Your task to perform on an android device: Empty the shopping cart on amazon. Search for usb-c on amazon, select the first entry, and add it to the cart. Image 0: 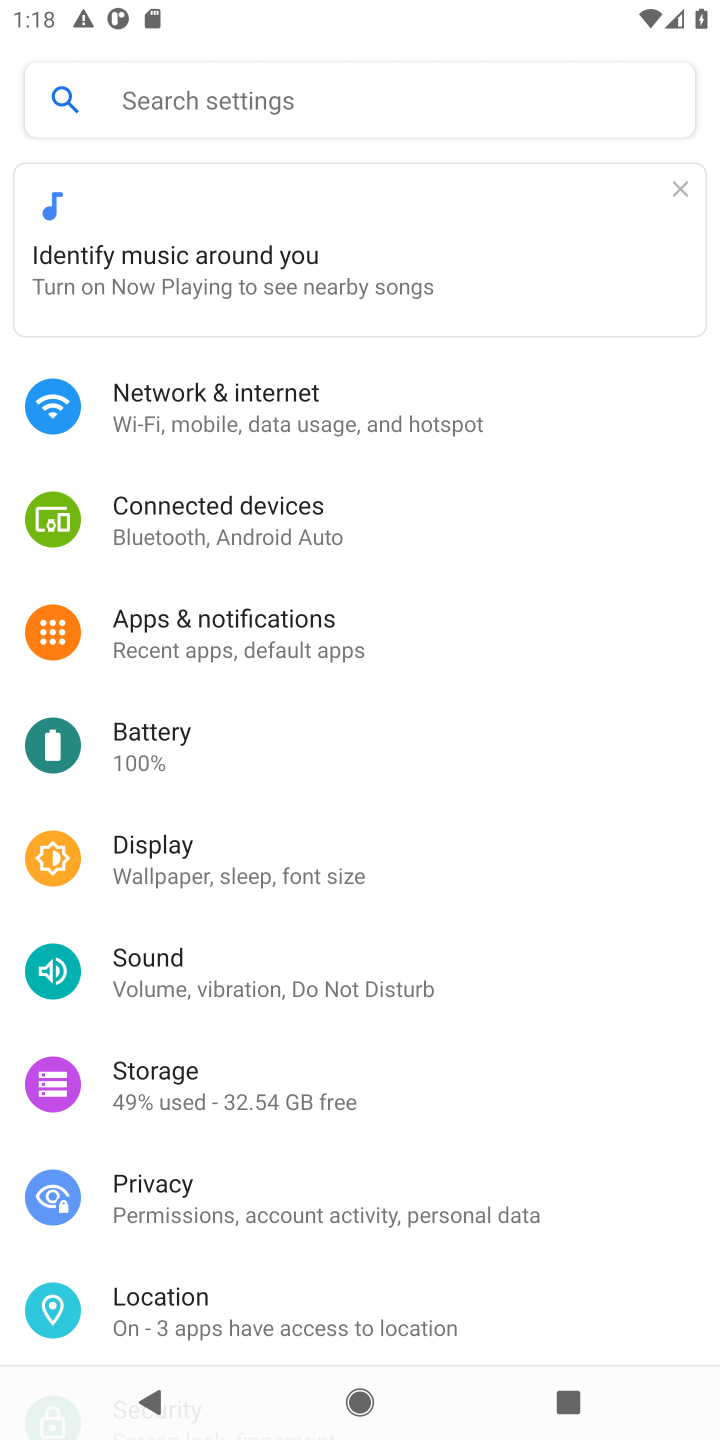
Step 0: press home button
Your task to perform on an android device: Empty the shopping cart on amazon. Search for usb-c on amazon, select the first entry, and add it to the cart. Image 1: 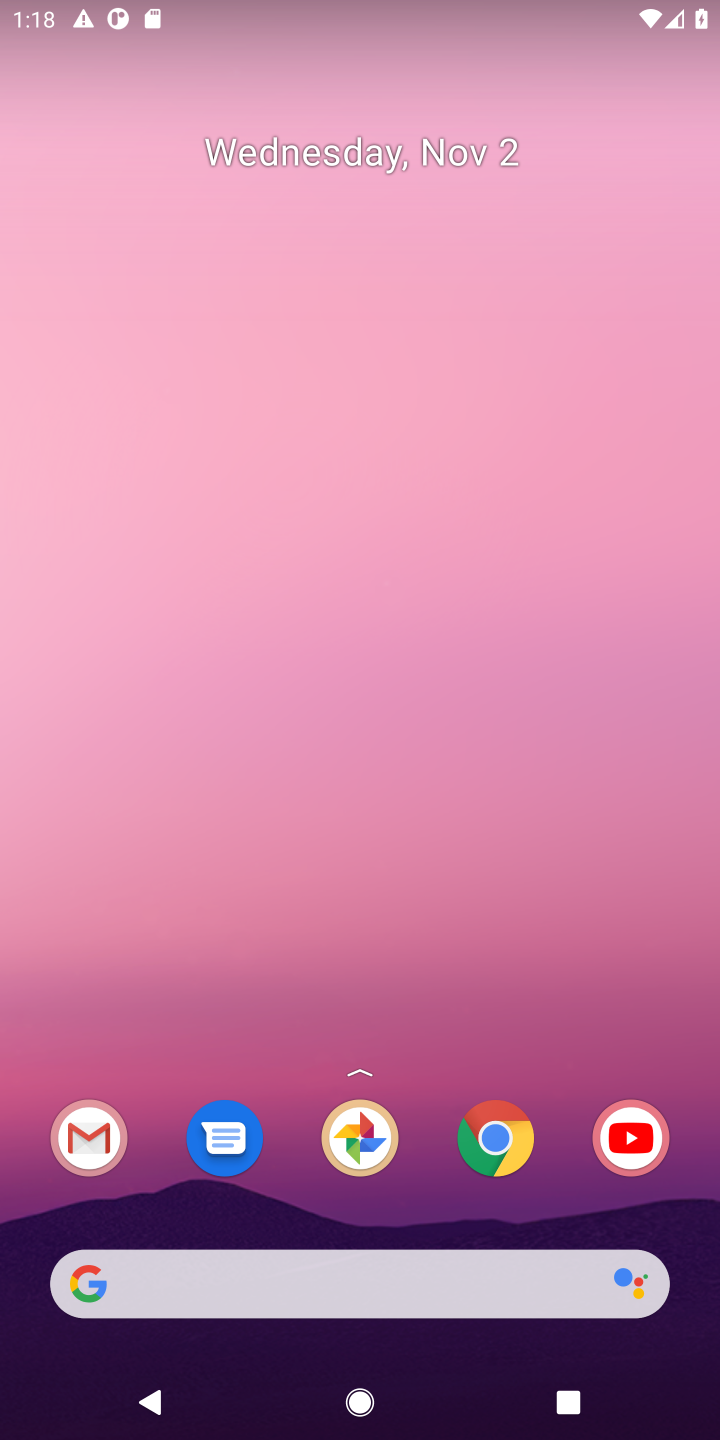
Step 1: click (477, 1132)
Your task to perform on an android device: Empty the shopping cart on amazon. Search for usb-c on amazon, select the first entry, and add it to the cart. Image 2: 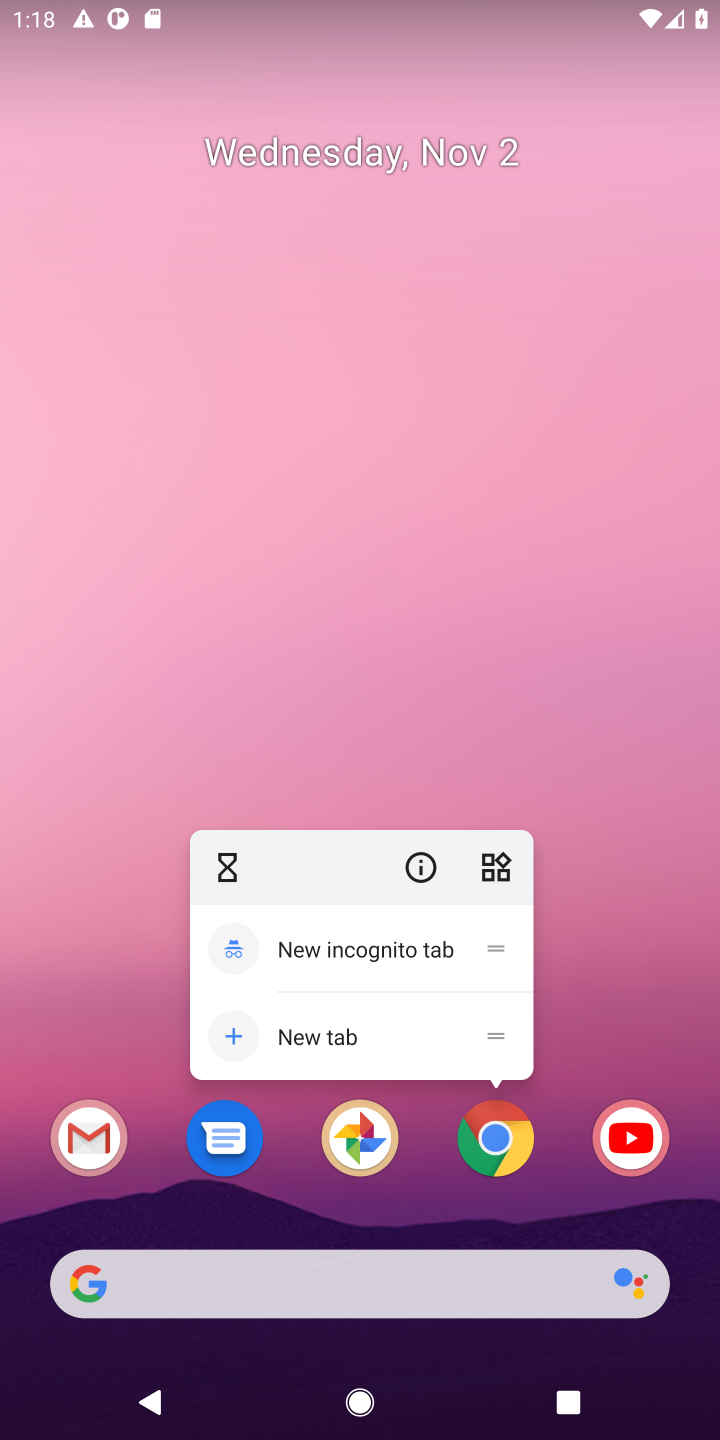
Step 2: click (477, 1132)
Your task to perform on an android device: Empty the shopping cart on amazon. Search for usb-c on amazon, select the first entry, and add it to the cart. Image 3: 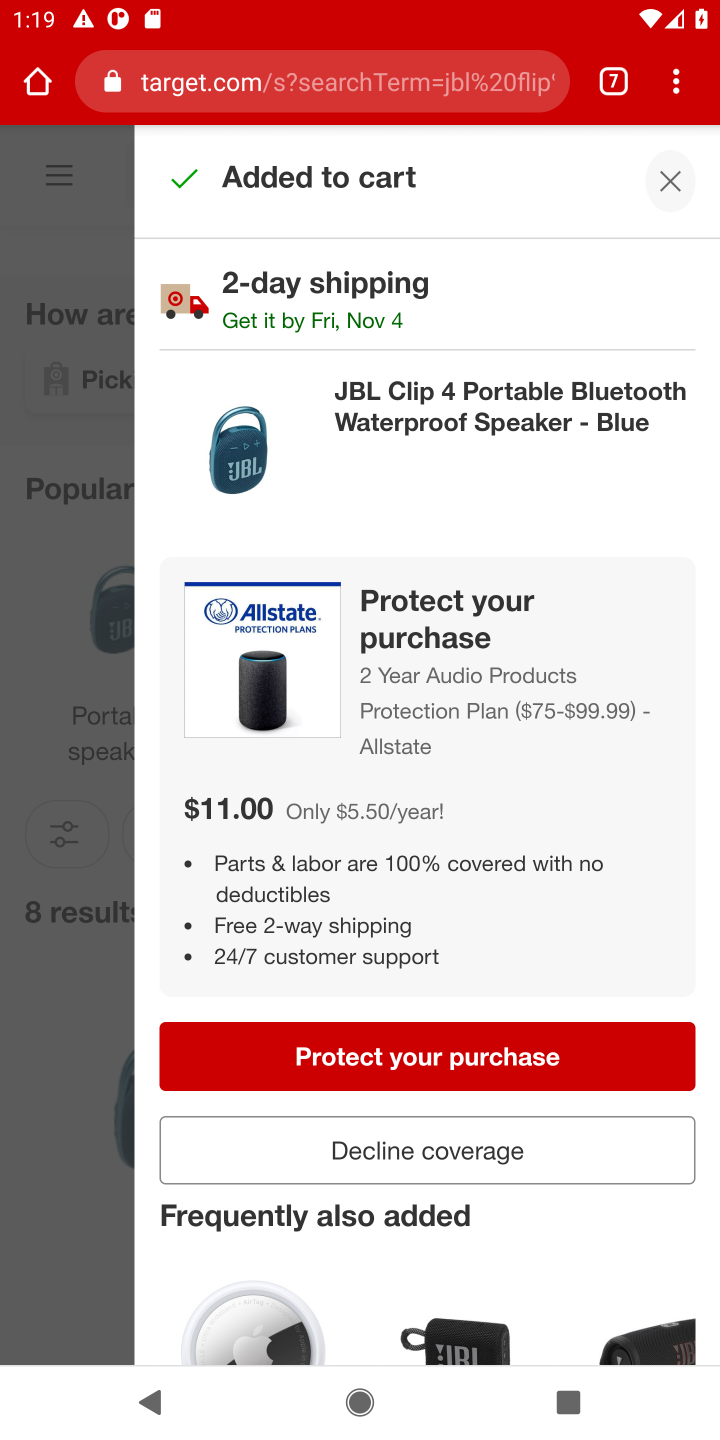
Step 3: click (610, 85)
Your task to perform on an android device: Empty the shopping cart on amazon. Search for usb-c on amazon, select the first entry, and add it to the cart. Image 4: 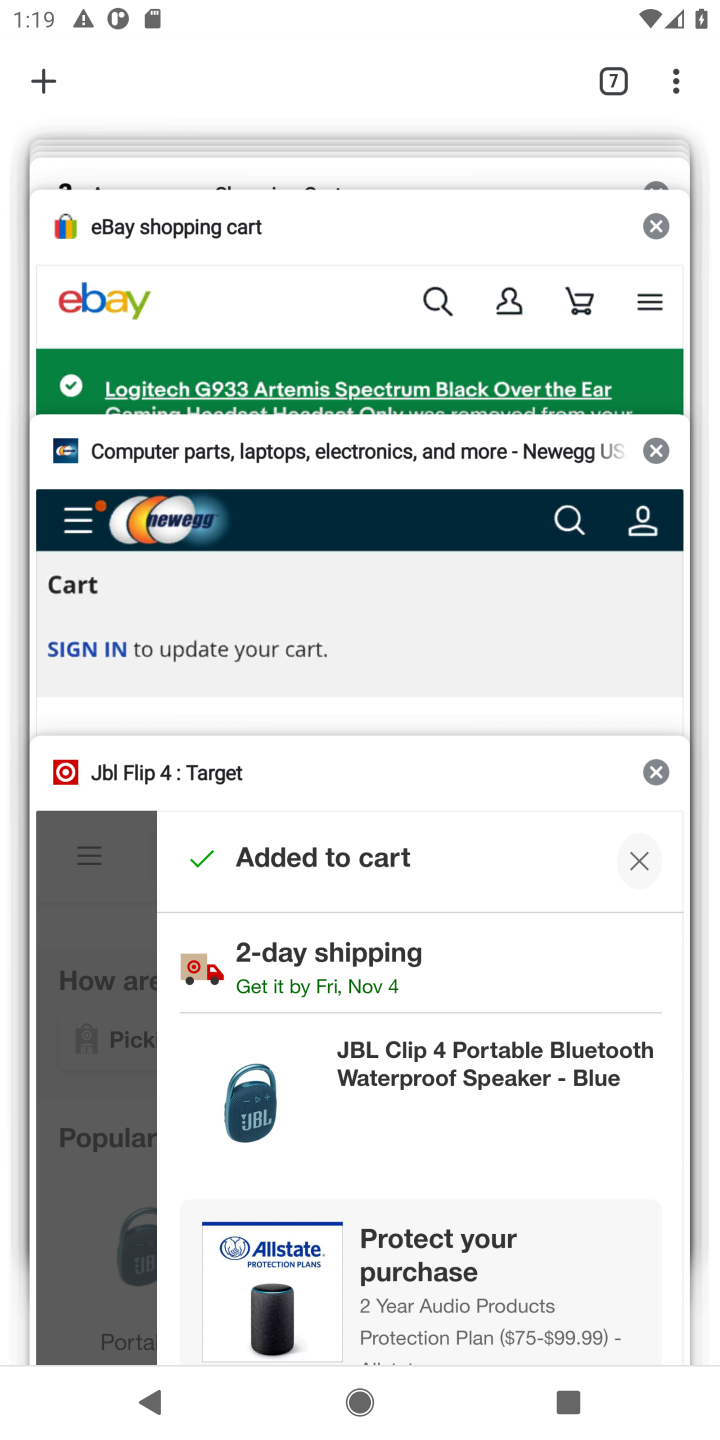
Step 4: drag from (470, 164) to (451, 441)
Your task to perform on an android device: Empty the shopping cart on amazon. Search for usb-c on amazon, select the first entry, and add it to the cart. Image 5: 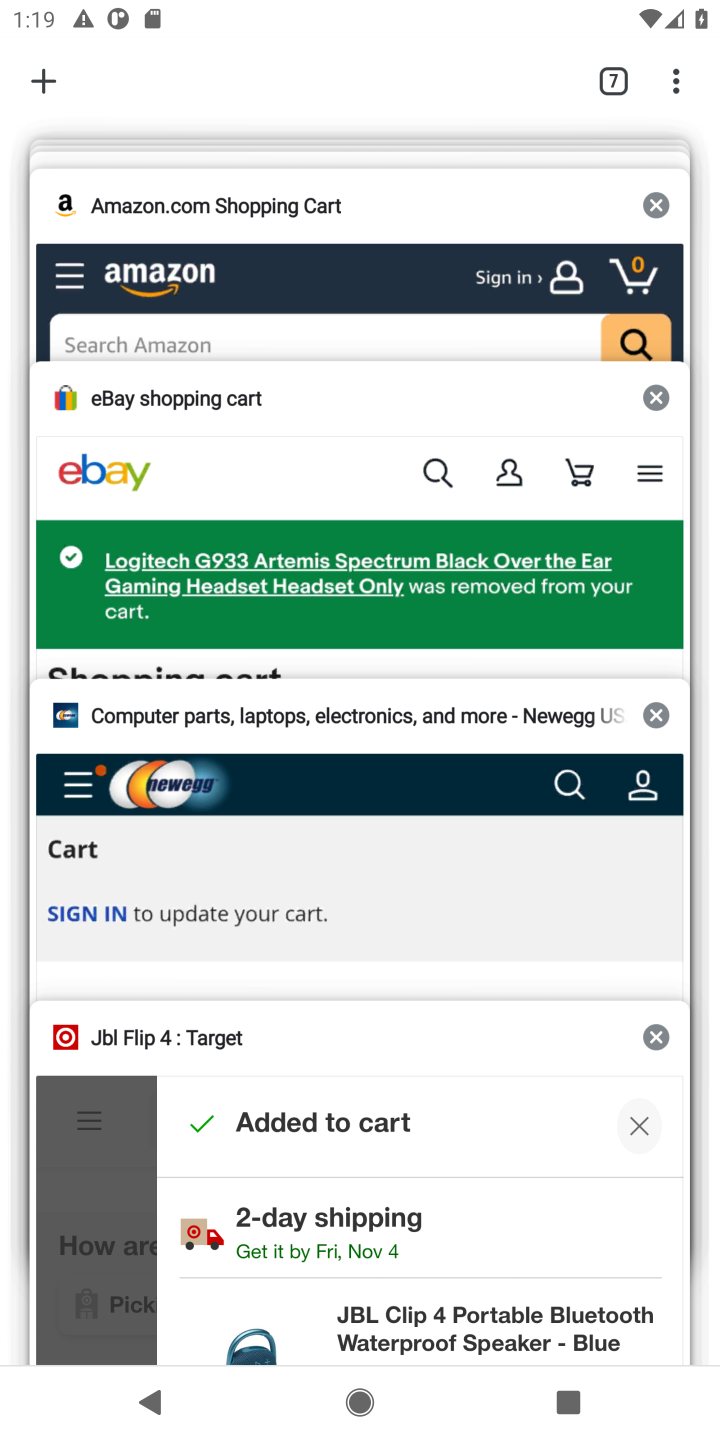
Step 5: click (445, 255)
Your task to perform on an android device: Empty the shopping cart on amazon. Search for usb-c on amazon, select the first entry, and add it to the cart. Image 6: 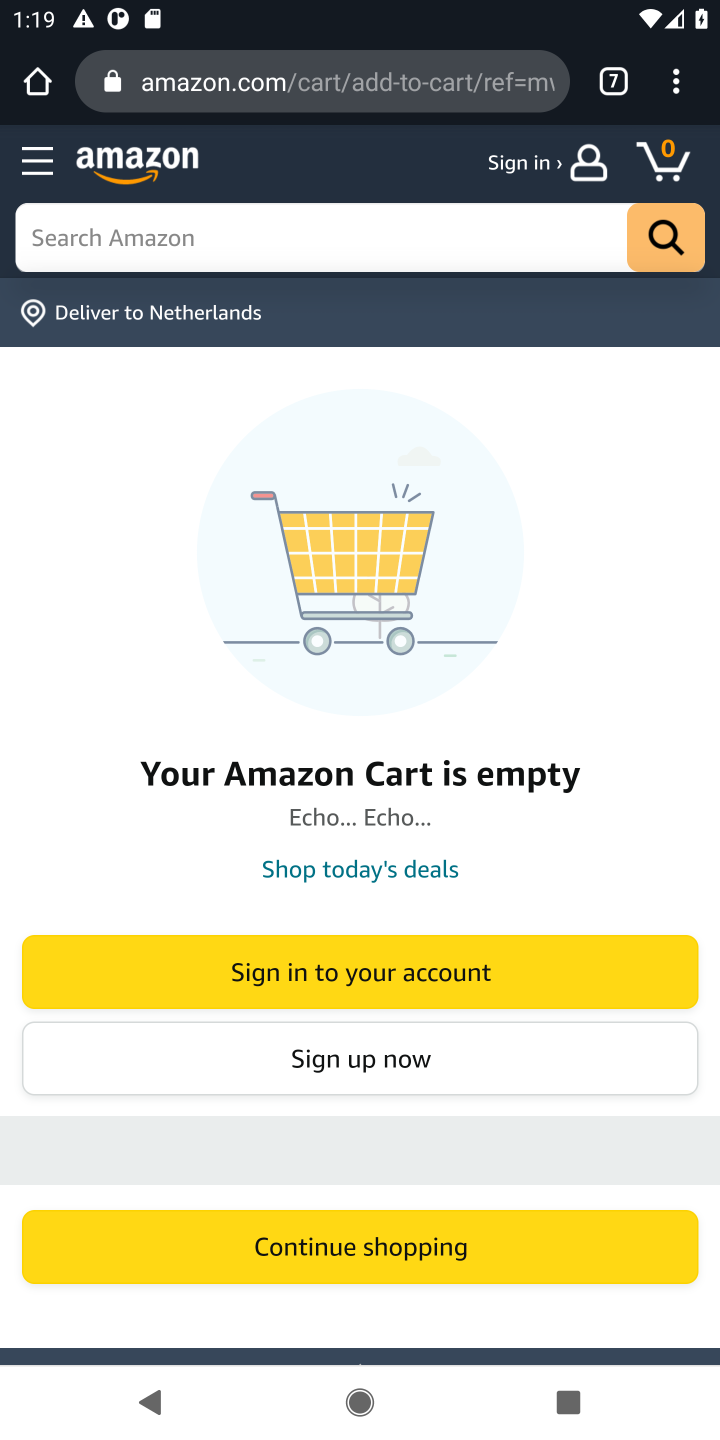
Step 6: click (434, 238)
Your task to perform on an android device: Empty the shopping cart on amazon. Search for usb-c on amazon, select the first entry, and add it to the cart. Image 7: 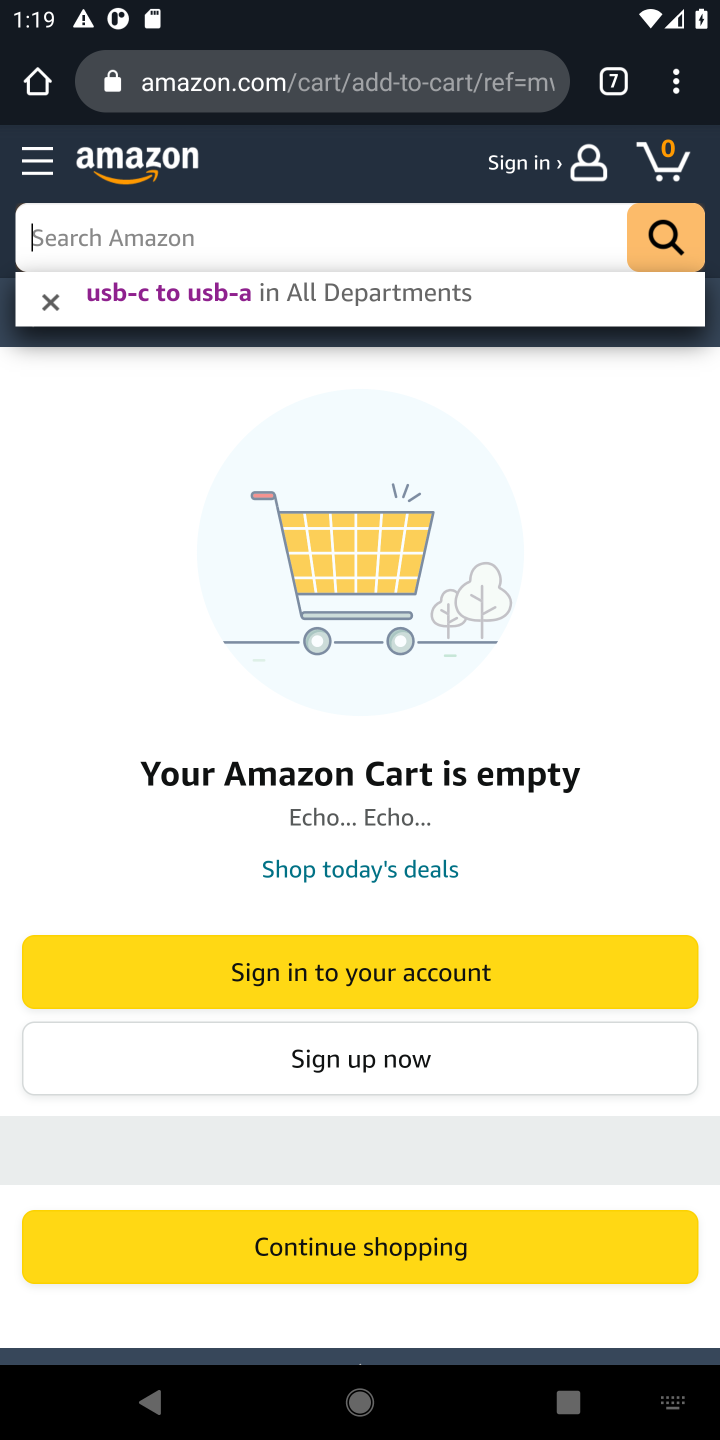
Step 7: type "usb-c"
Your task to perform on an android device: Empty the shopping cart on amazon. Search for usb-c on amazon, select the first entry, and add it to the cart. Image 8: 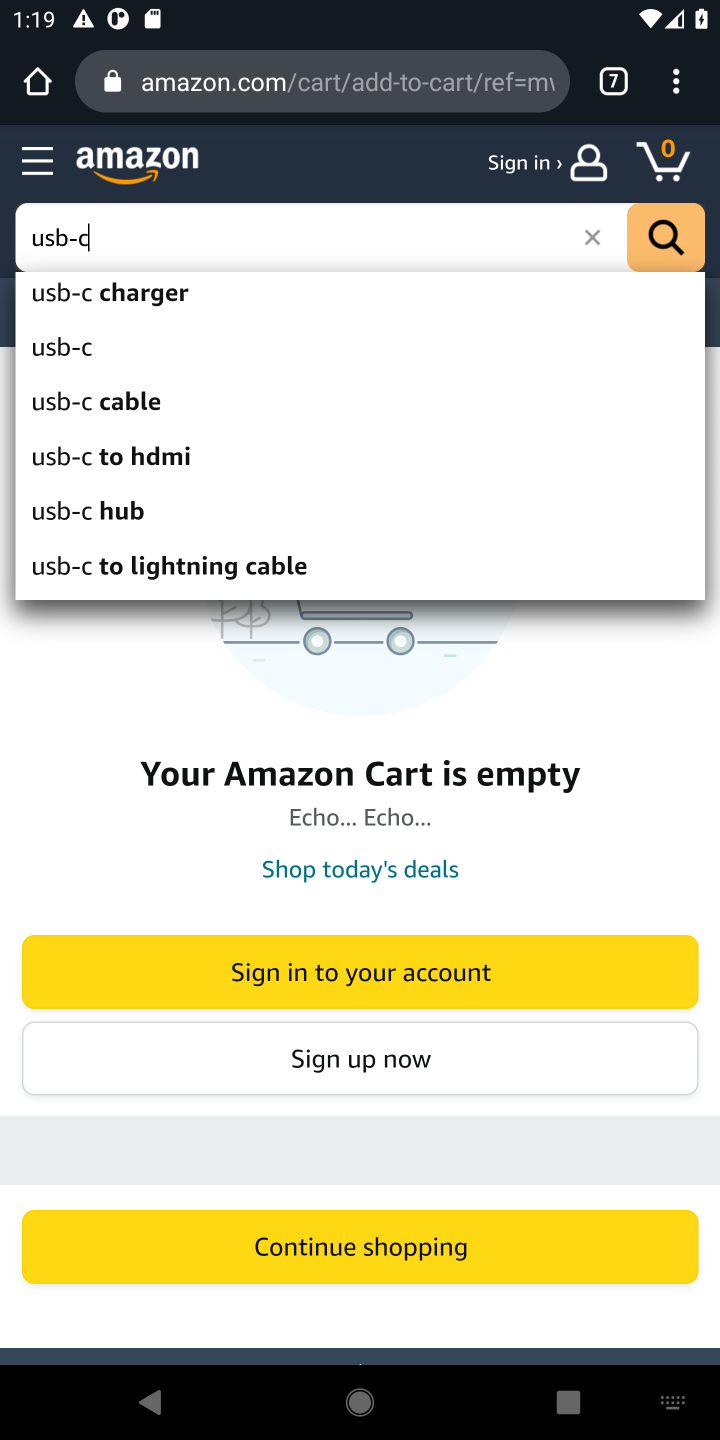
Step 8: click (101, 289)
Your task to perform on an android device: Empty the shopping cart on amazon. Search for usb-c on amazon, select the first entry, and add it to the cart. Image 9: 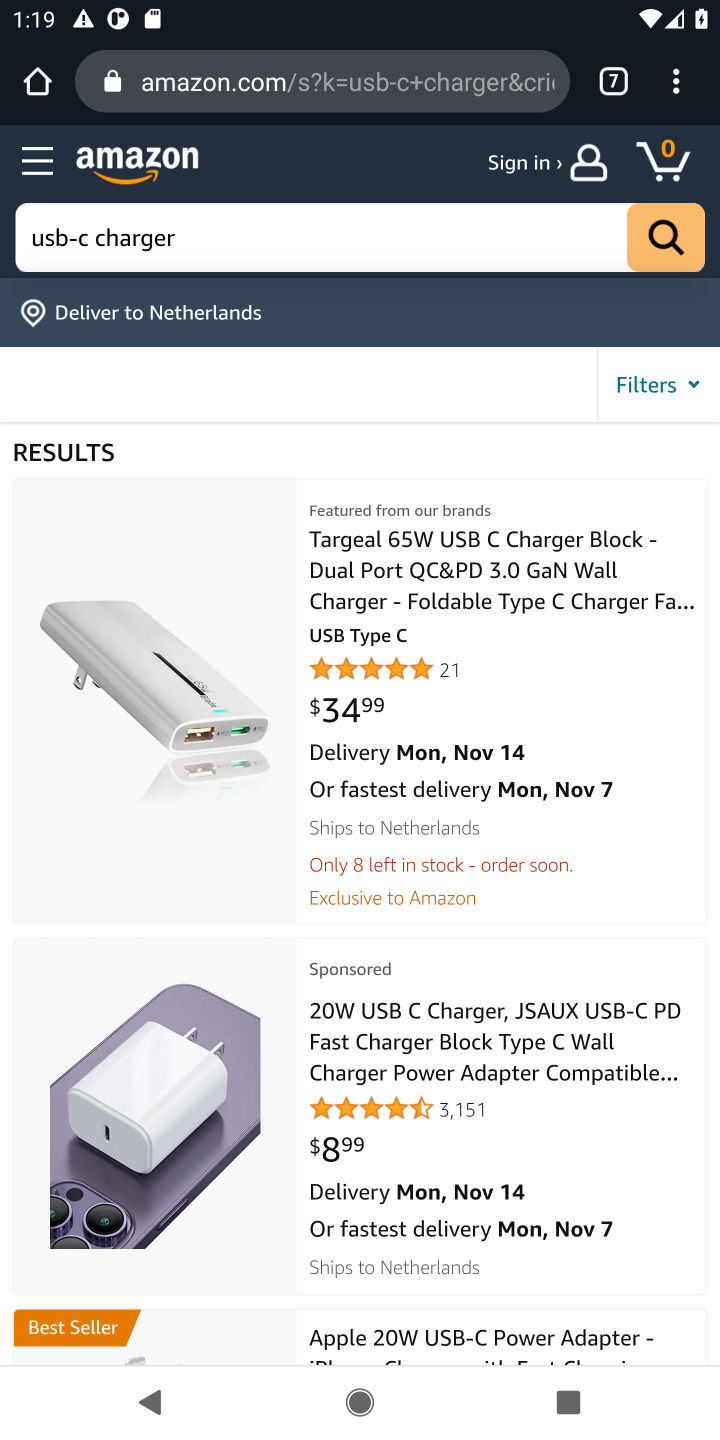
Step 9: click (375, 1039)
Your task to perform on an android device: Empty the shopping cart on amazon. Search for usb-c on amazon, select the first entry, and add it to the cart. Image 10: 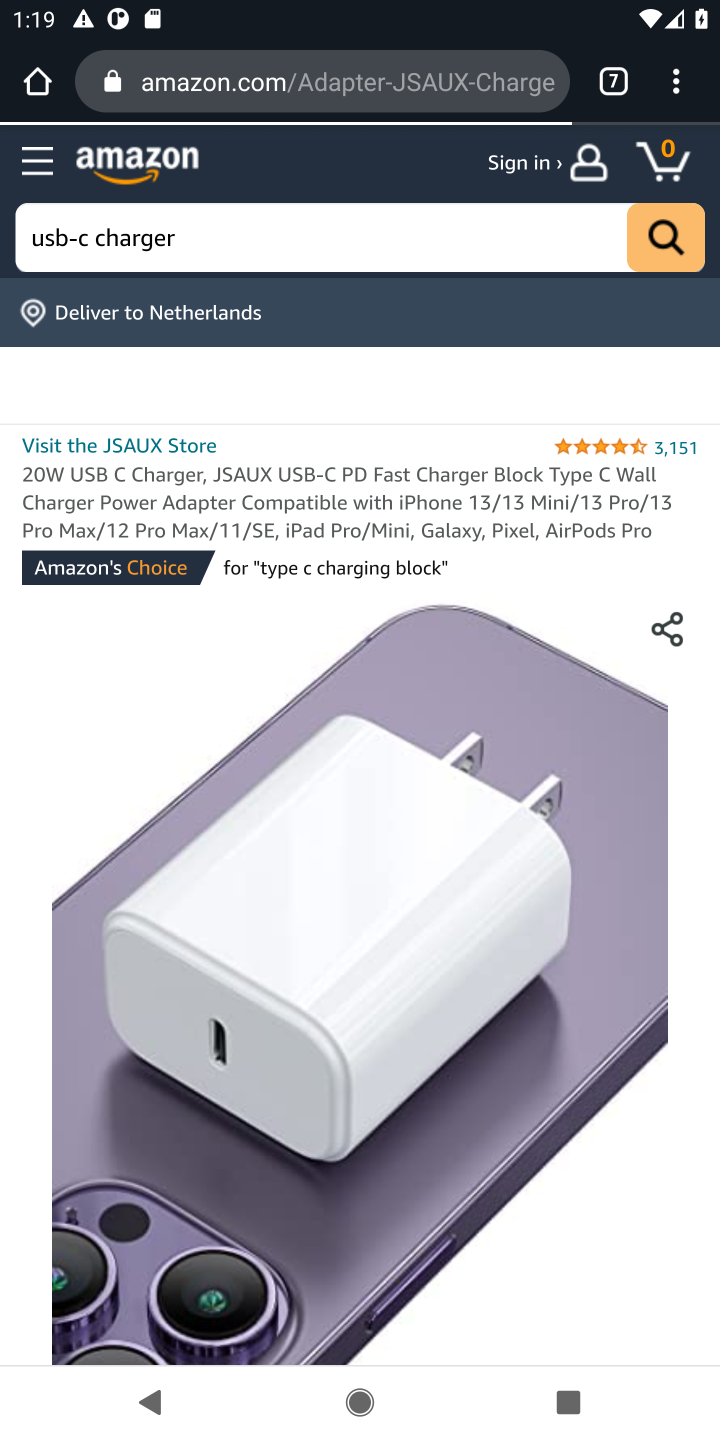
Step 10: drag from (533, 1300) to (463, 537)
Your task to perform on an android device: Empty the shopping cart on amazon. Search for usb-c on amazon, select the first entry, and add it to the cart. Image 11: 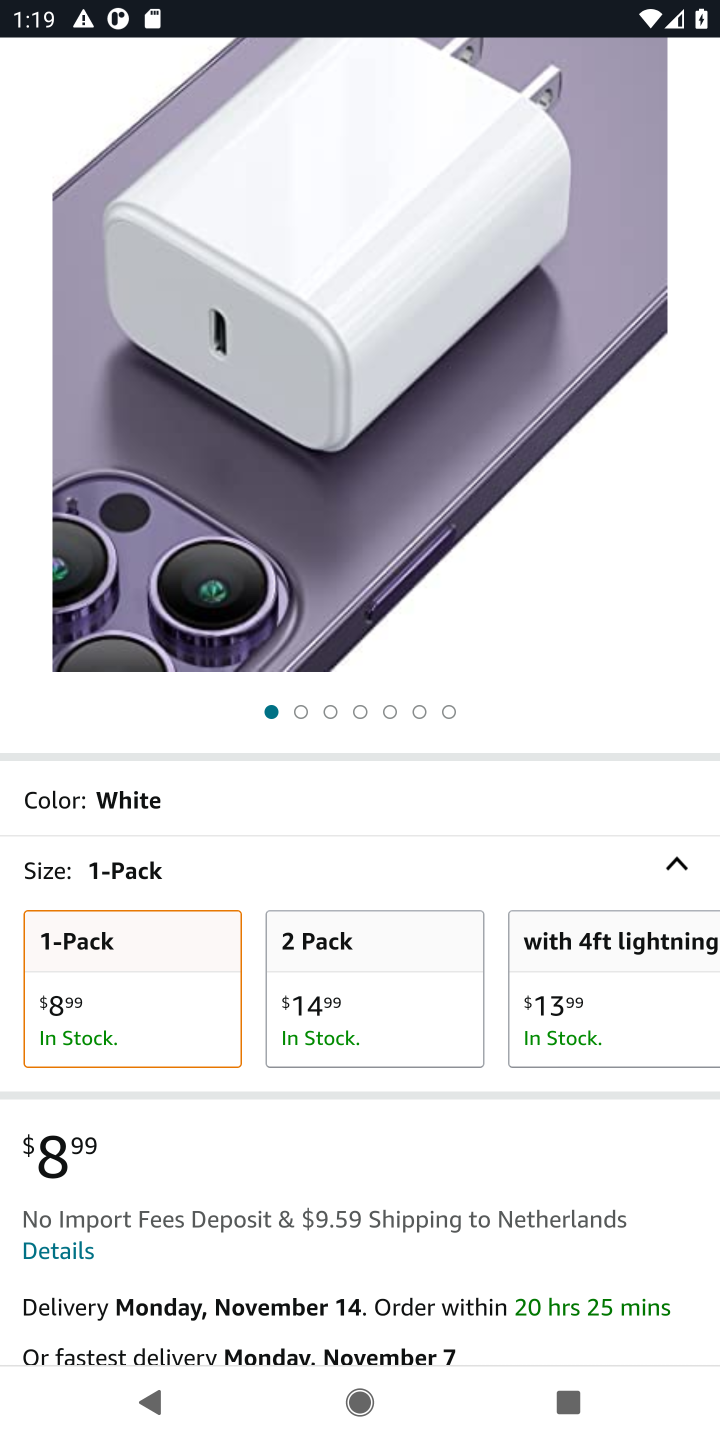
Step 11: drag from (440, 1192) to (495, 240)
Your task to perform on an android device: Empty the shopping cart on amazon. Search for usb-c on amazon, select the first entry, and add it to the cart. Image 12: 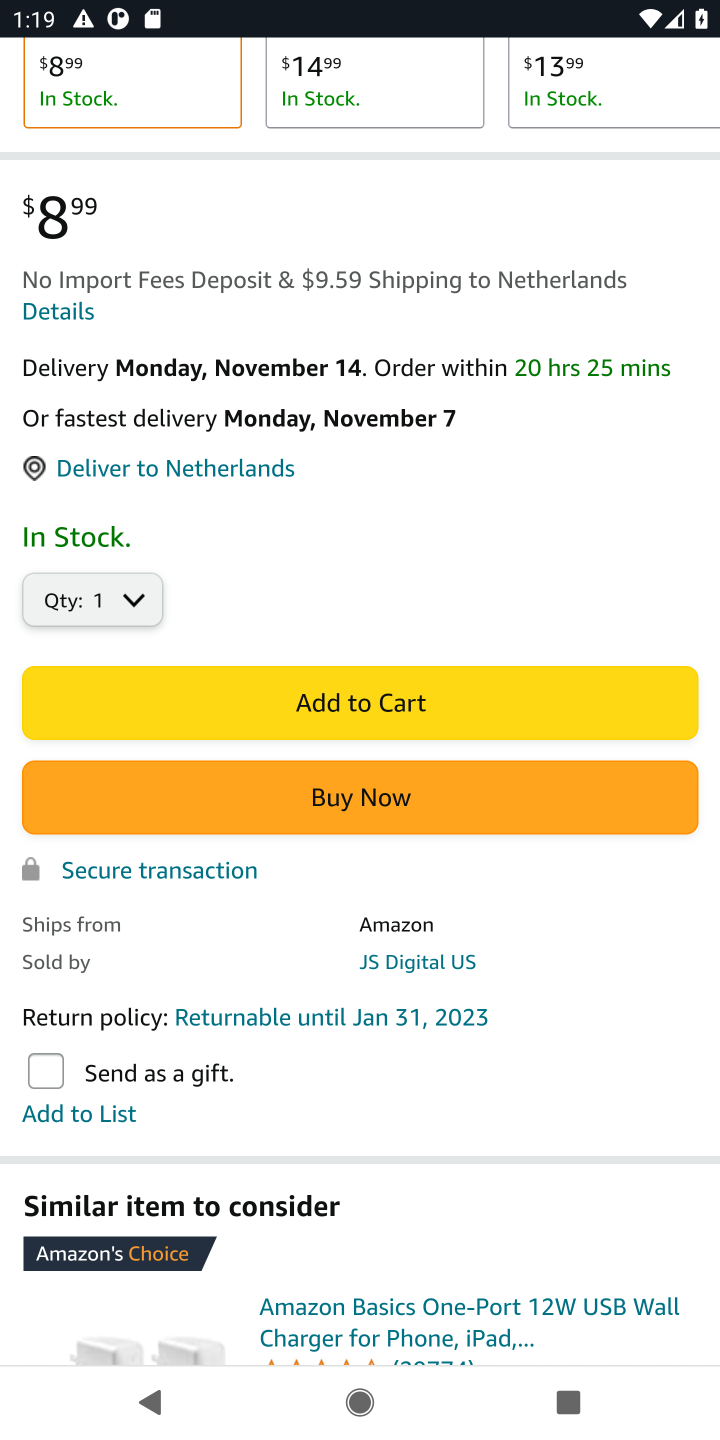
Step 12: click (355, 697)
Your task to perform on an android device: Empty the shopping cart on amazon. Search for usb-c on amazon, select the first entry, and add it to the cart. Image 13: 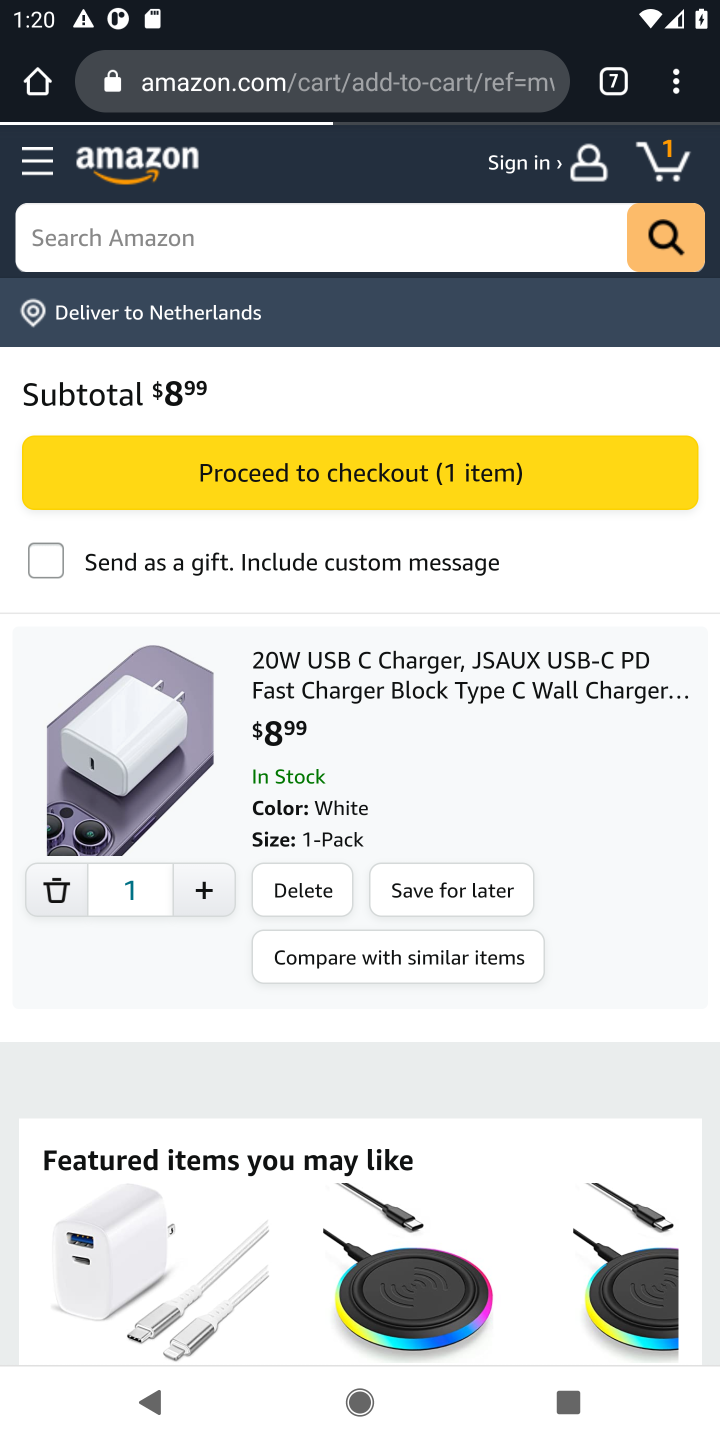
Step 13: task complete